Your task to perform on an android device: Open eBay Image 0: 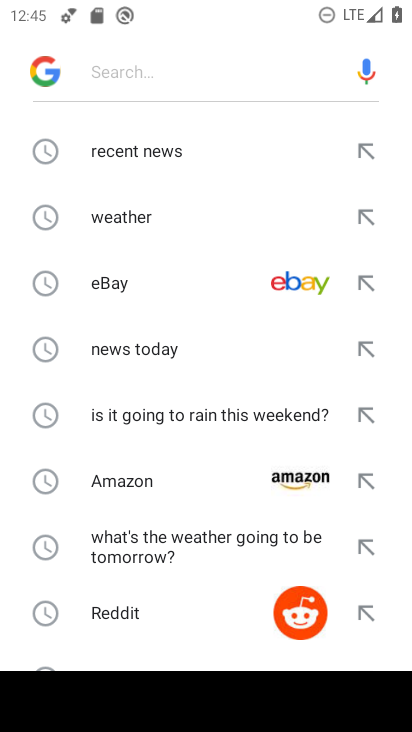
Step 0: click (290, 271)
Your task to perform on an android device: Open eBay Image 1: 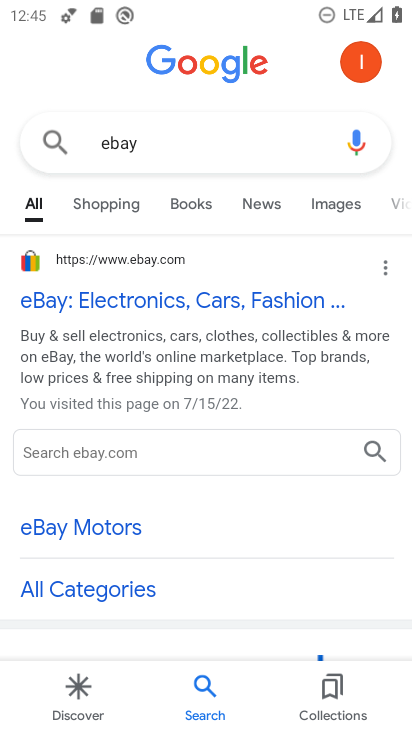
Step 1: click (62, 299)
Your task to perform on an android device: Open eBay Image 2: 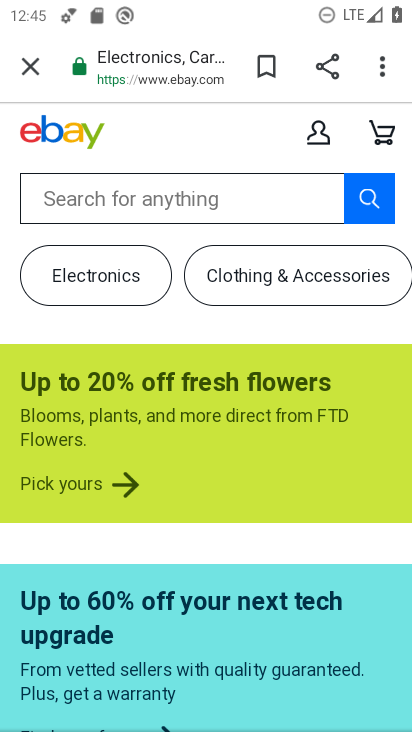
Step 2: task complete